Your task to perform on an android device: Open accessibility settings Image 0: 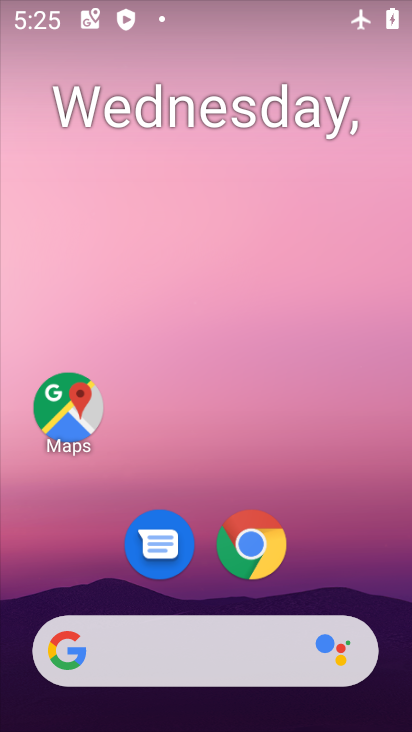
Step 0: drag from (395, 712) to (369, 226)
Your task to perform on an android device: Open accessibility settings Image 1: 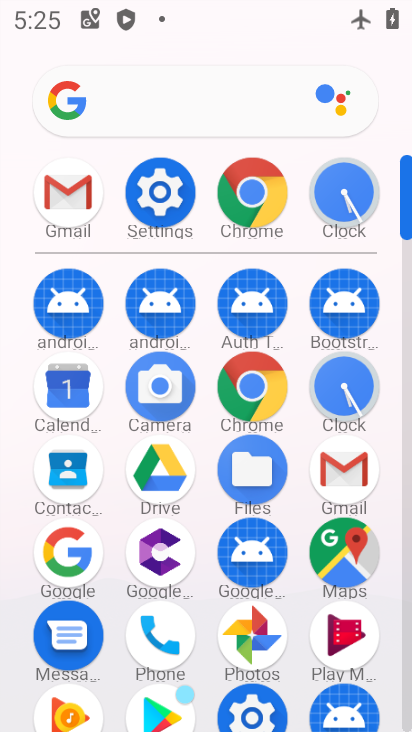
Step 1: click (172, 200)
Your task to perform on an android device: Open accessibility settings Image 2: 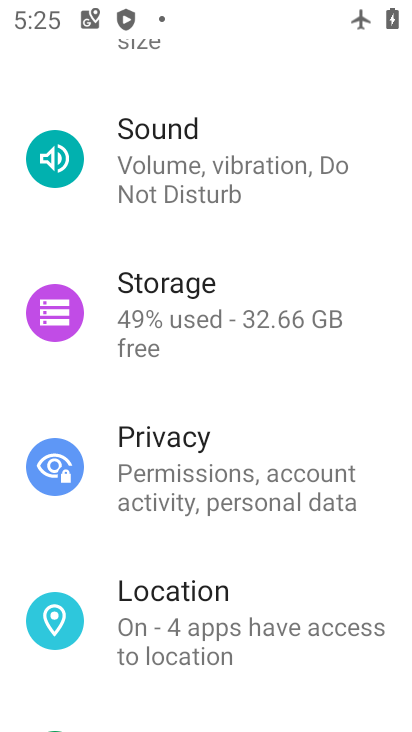
Step 2: drag from (302, 678) to (297, 295)
Your task to perform on an android device: Open accessibility settings Image 3: 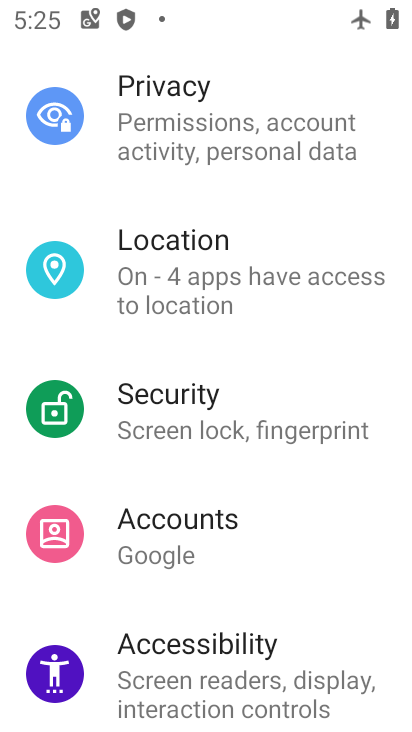
Step 3: click (217, 651)
Your task to perform on an android device: Open accessibility settings Image 4: 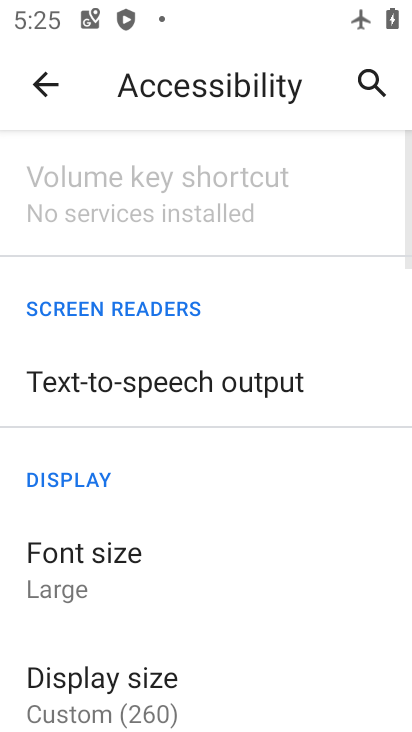
Step 4: task complete